Your task to perform on an android device: Open Amazon Image 0: 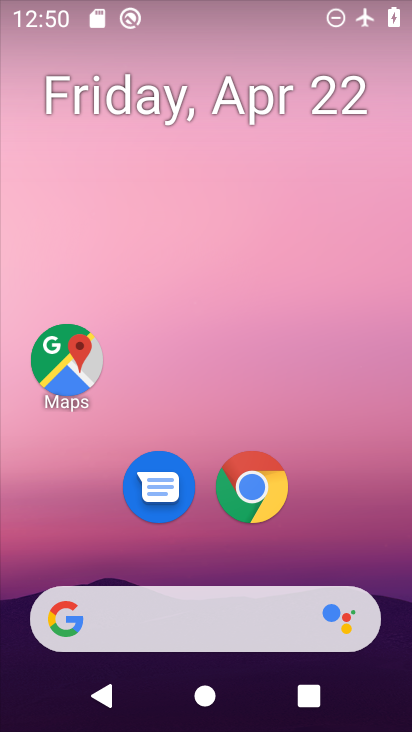
Step 0: click (330, 225)
Your task to perform on an android device: Open Amazon Image 1: 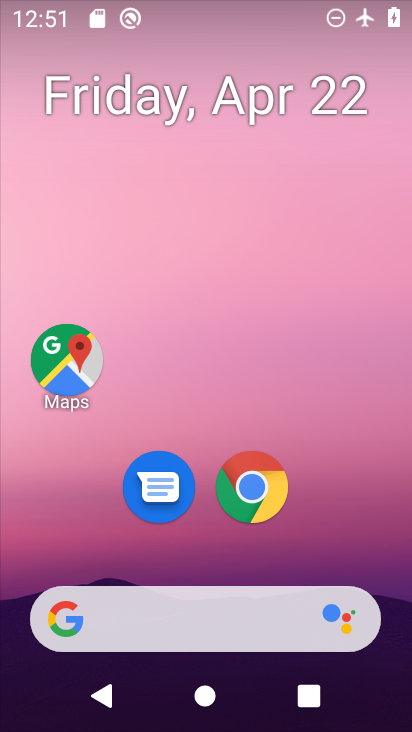
Step 1: drag from (307, 273) to (307, 189)
Your task to perform on an android device: Open Amazon Image 2: 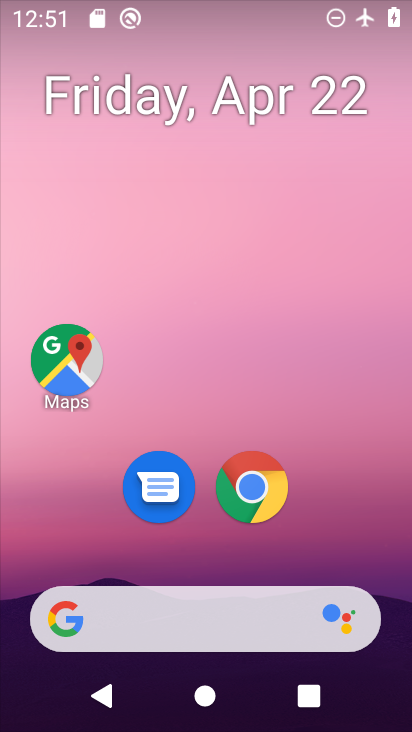
Step 2: drag from (242, 571) to (247, 229)
Your task to perform on an android device: Open Amazon Image 3: 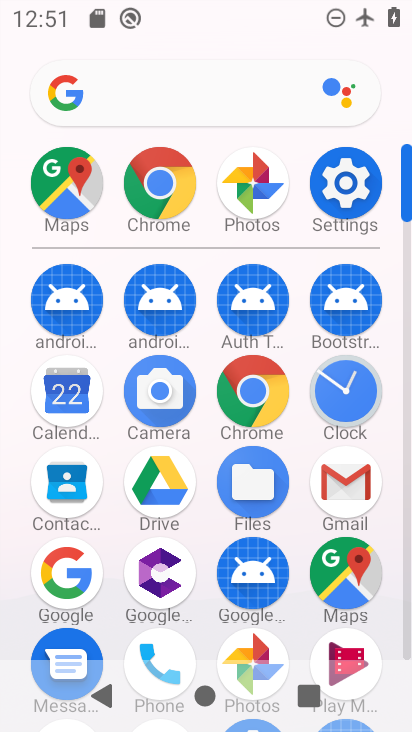
Step 3: click (161, 179)
Your task to perform on an android device: Open Amazon Image 4: 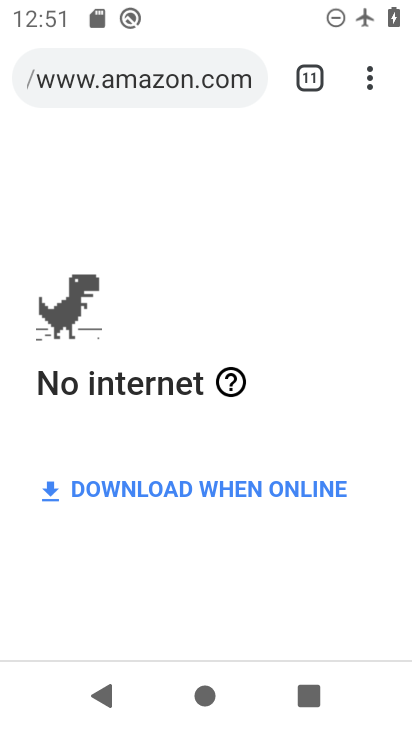
Step 4: click (353, 78)
Your task to perform on an android device: Open Amazon Image 5: 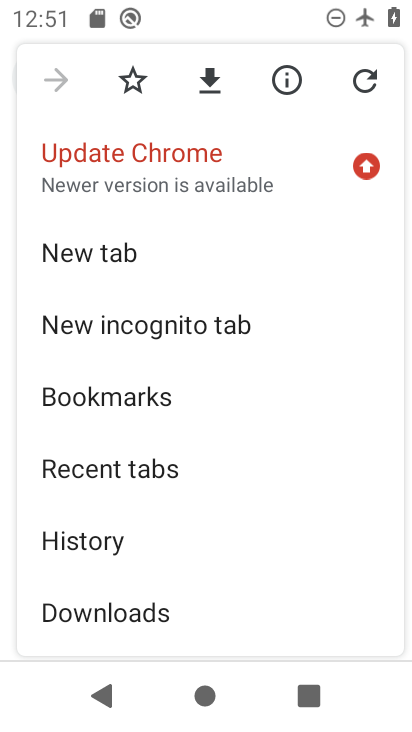
Step 5: click (118, 252)
Your task to perform on an android device: Open Amazon Image 6: 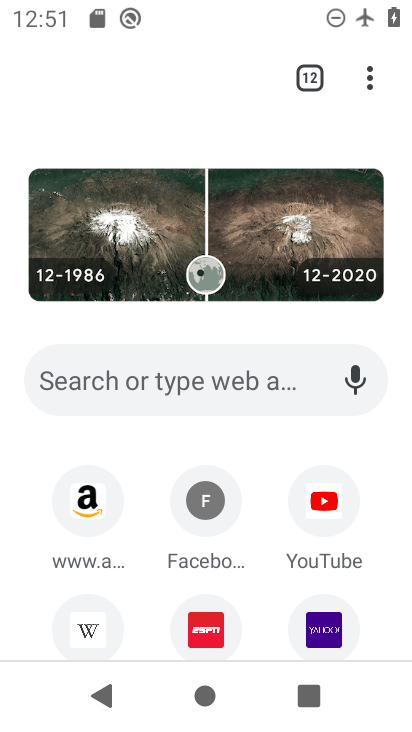
Step 6: click (96, 478)
Your task to perform on an android device: Open Amazon Image 7: 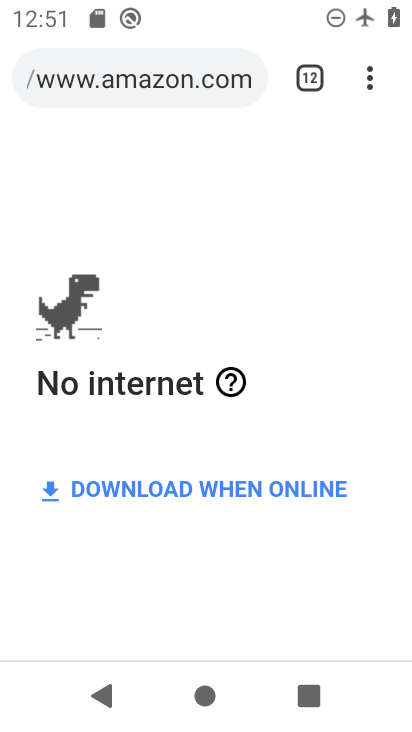
Step 7: task complete